Your task to perform on an android device: Empty the shopping cart on ebay. Add "macbook pro" to the cart on ebay Image 0: 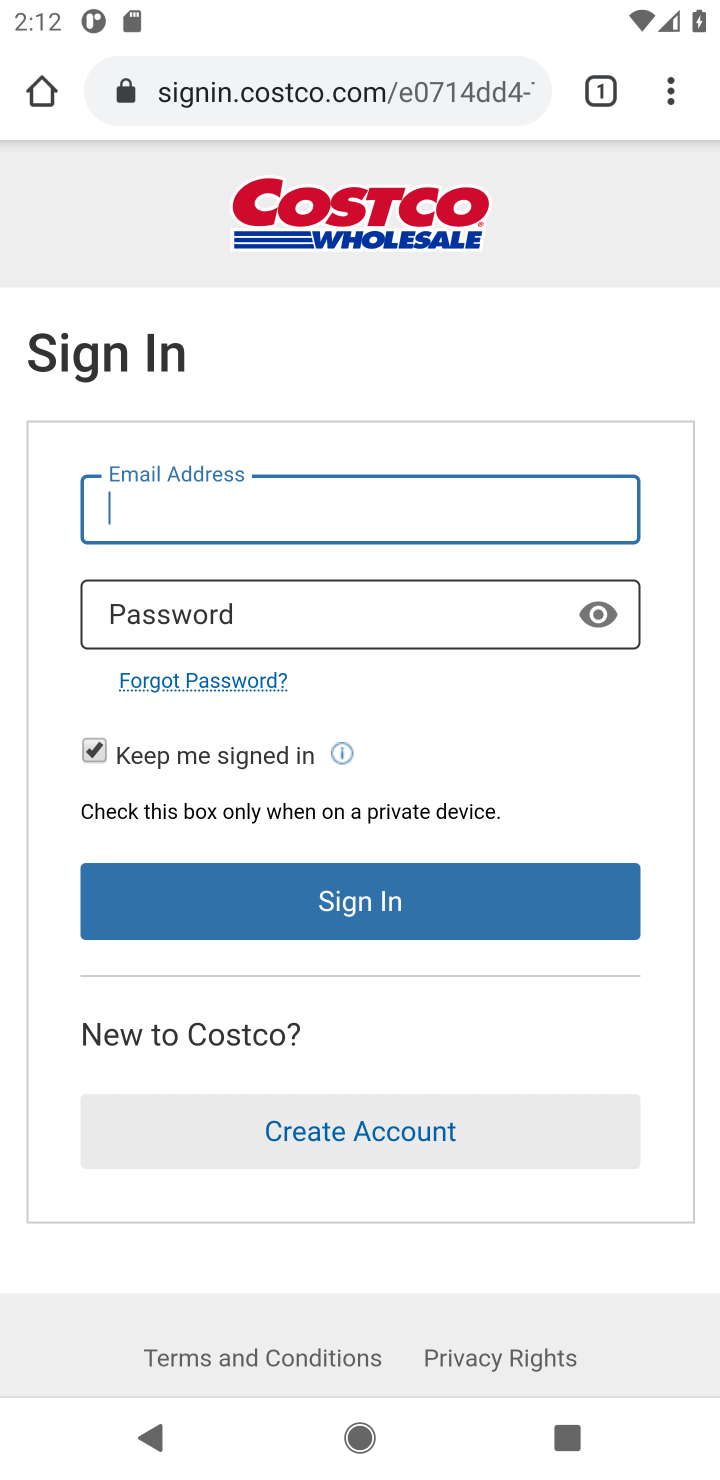
Step 0: press home button
Your task to perform on an android device: Empty the shopping cart on ebay. Add "macbook pro" to the cart on ebay Image 1: 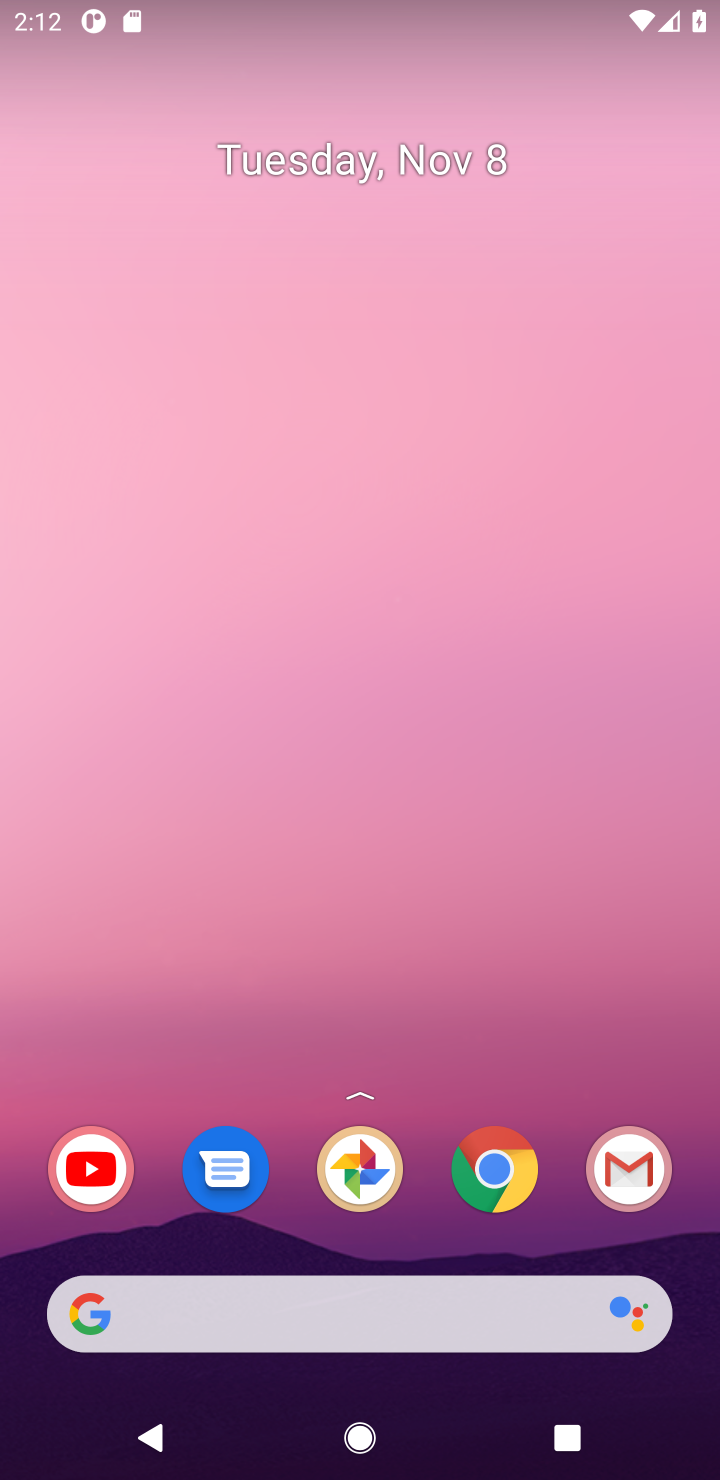
Step 1: click (524, 1169)
Your task to perform on an android device: Empty the shopping cart on ebay. Add "macbook pro" to the cart on ebay Image 2: 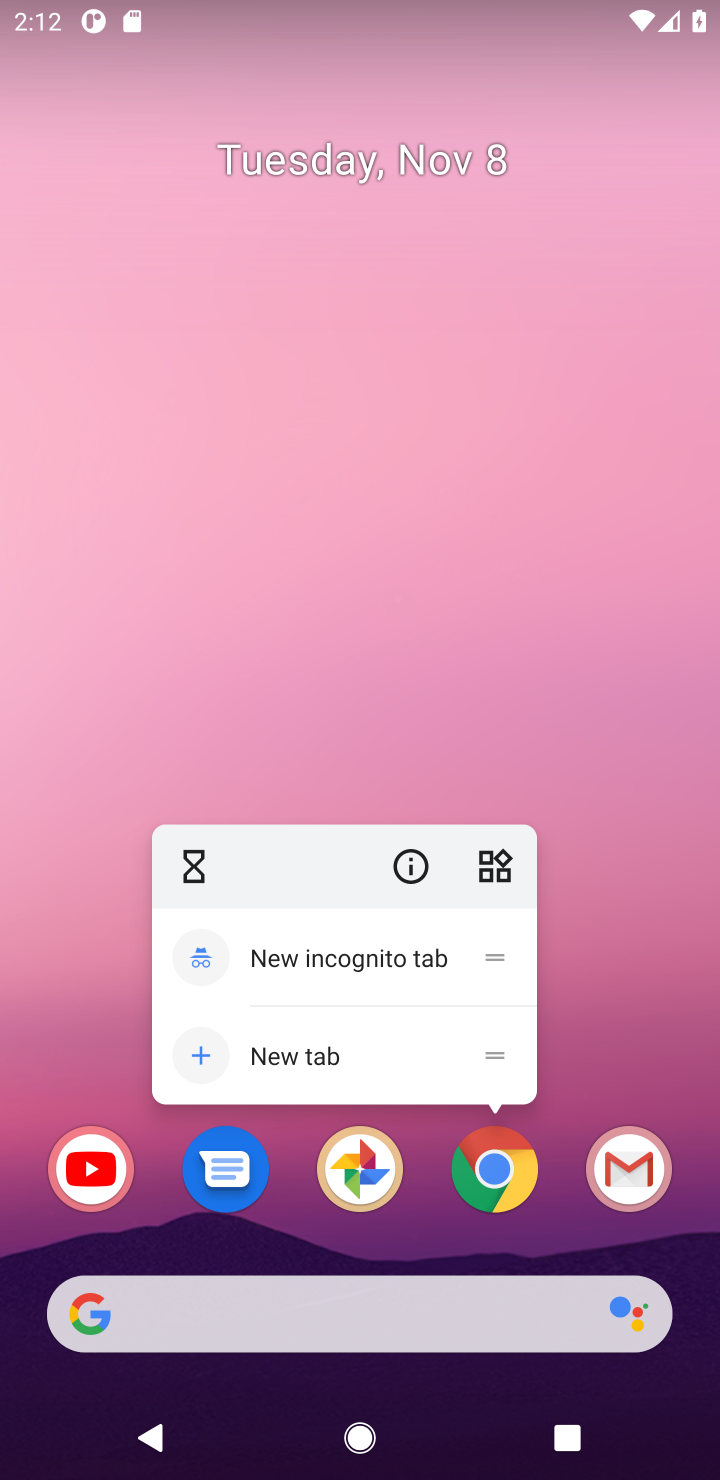
Step 2: click (512, 1161)
Your task to perform on an android device: Empty the shopping cart on ebay. Add "macbook pro" to the cart on ebay Image 3: 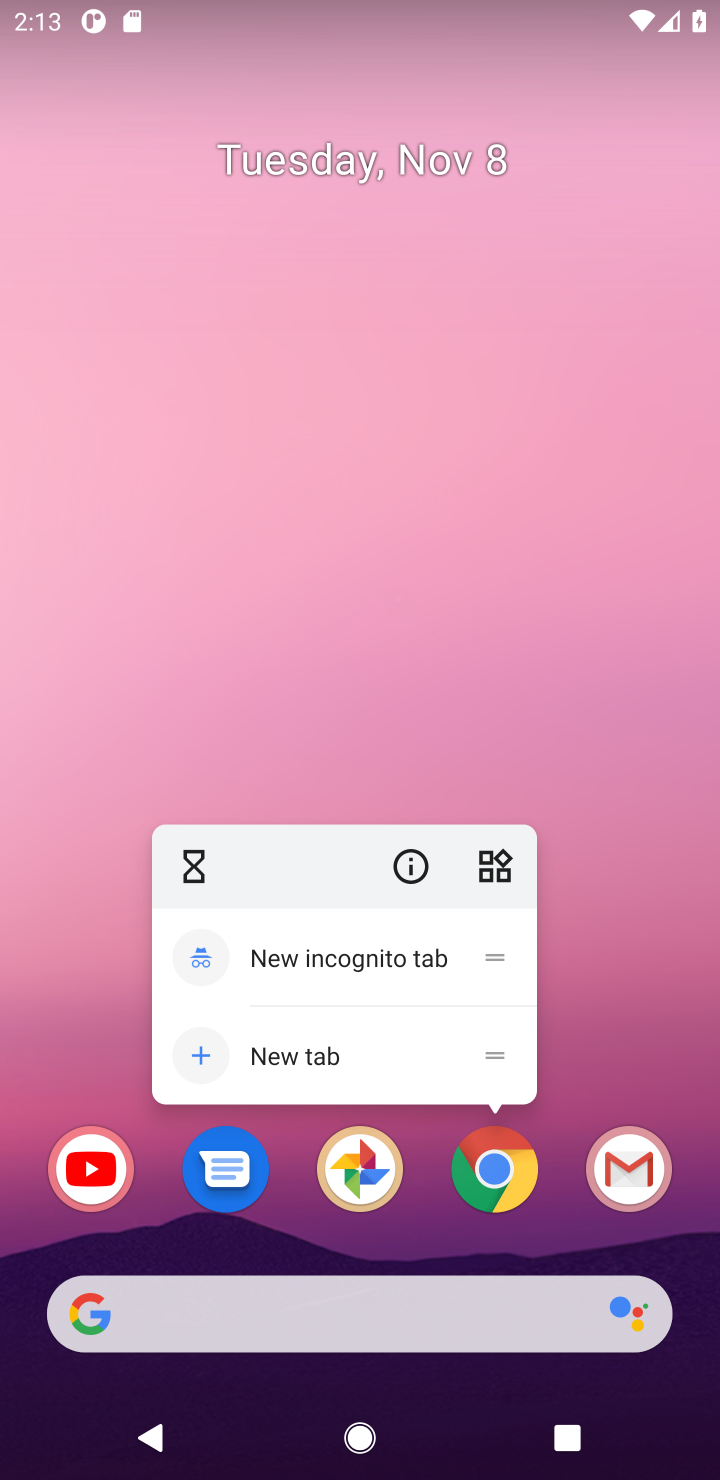
Step 3: click (494, 1184)
Your task to perform on an android device: Empty the shopping cart on ebay. Add "macbook pro" to the cart on ebay Image 4: 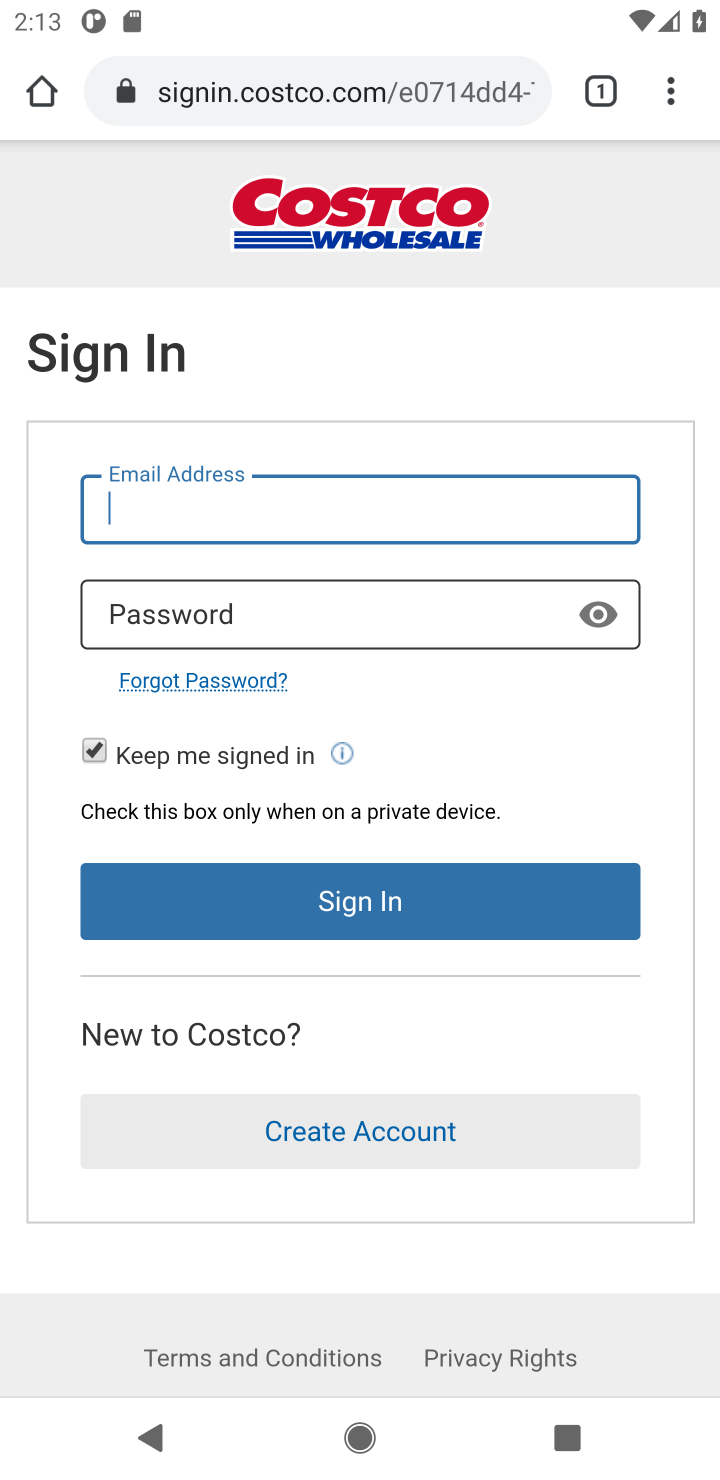
Step 4: click (334, 108)
Your task to perform on an android device: Empty the shopping cart on ebay. Add "macbook pro" to the cart on ebay Image 5: 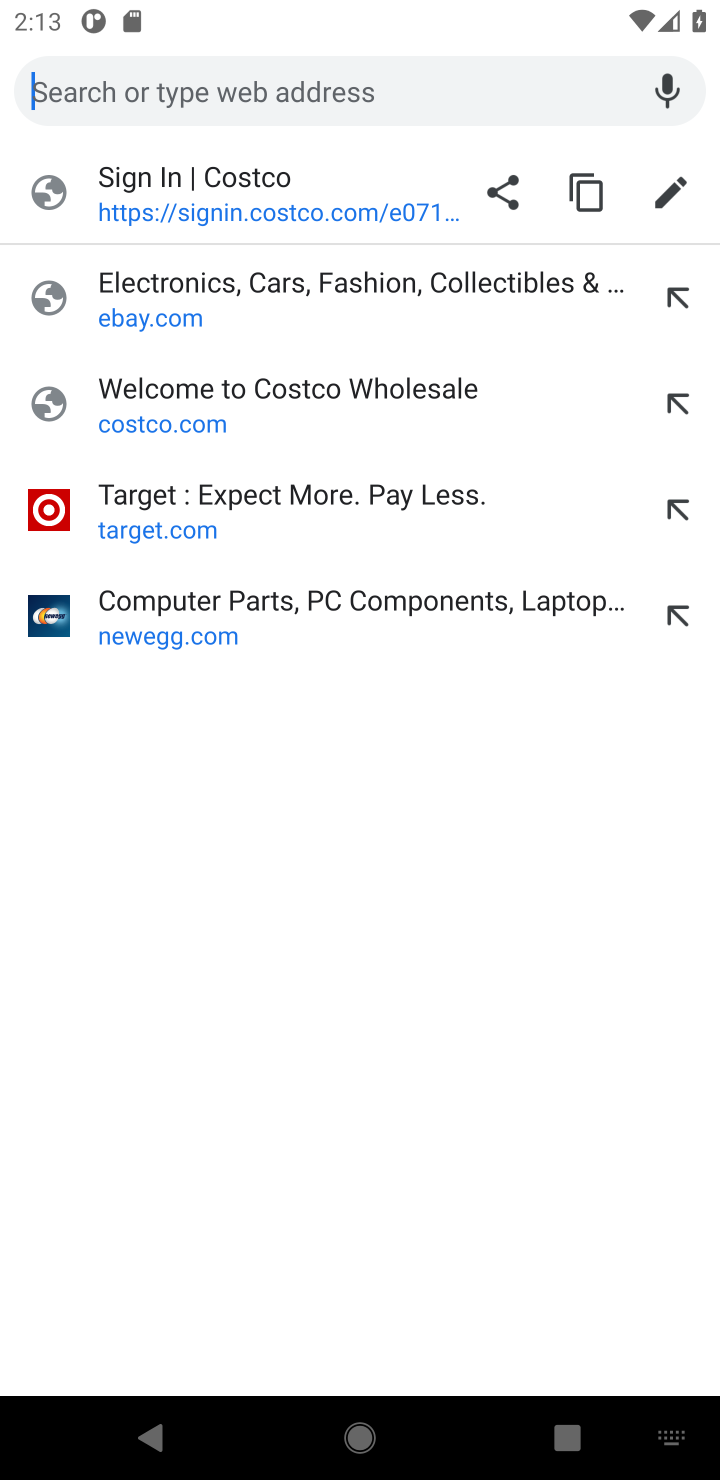
Step 5: type "ebay"
Your task to perform on an android device: Empty the shopping cart on ebay. Add "macbook pro" to the cart on ebay Image 6: 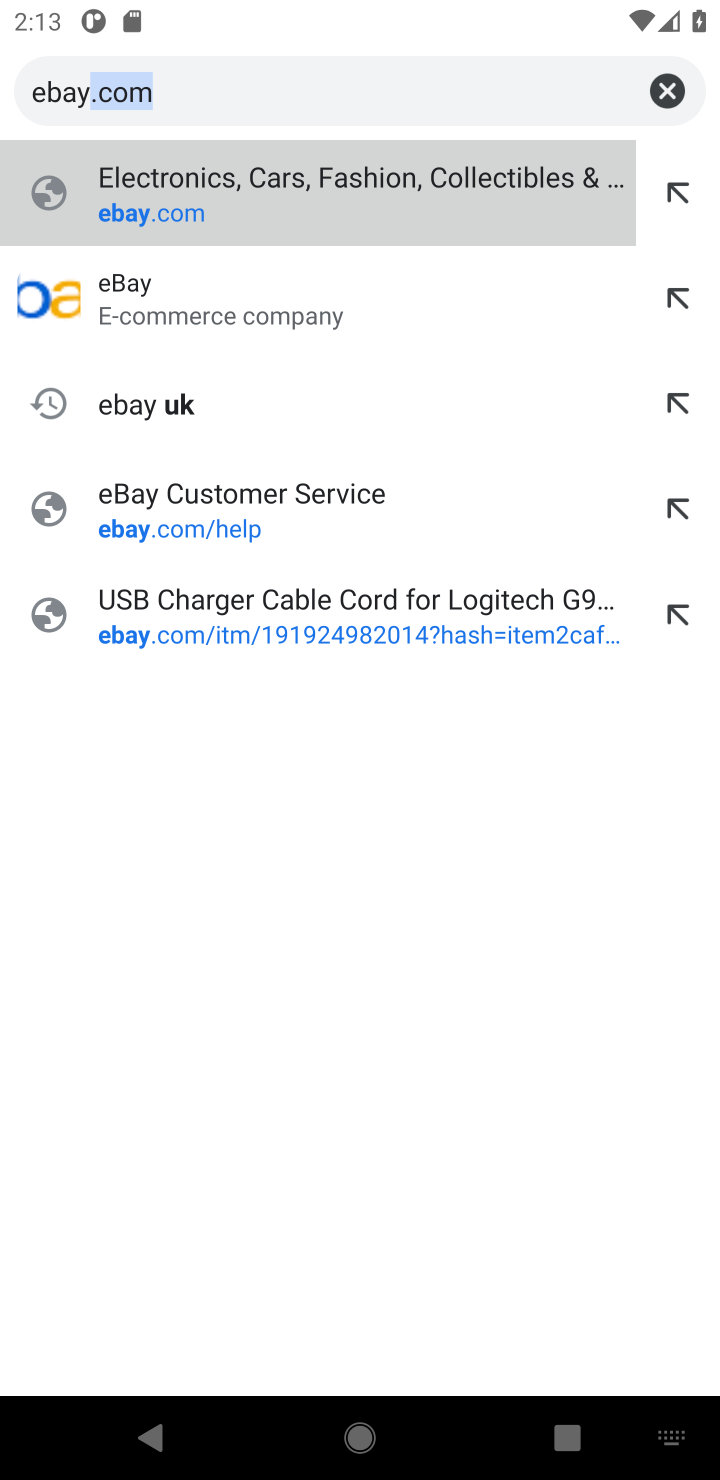
Step 6: click (485, 187)
Your task to perform on an android device: Empty the shopping cart on ebay. Add "macbook pro" to the cart on ebay Image 7: 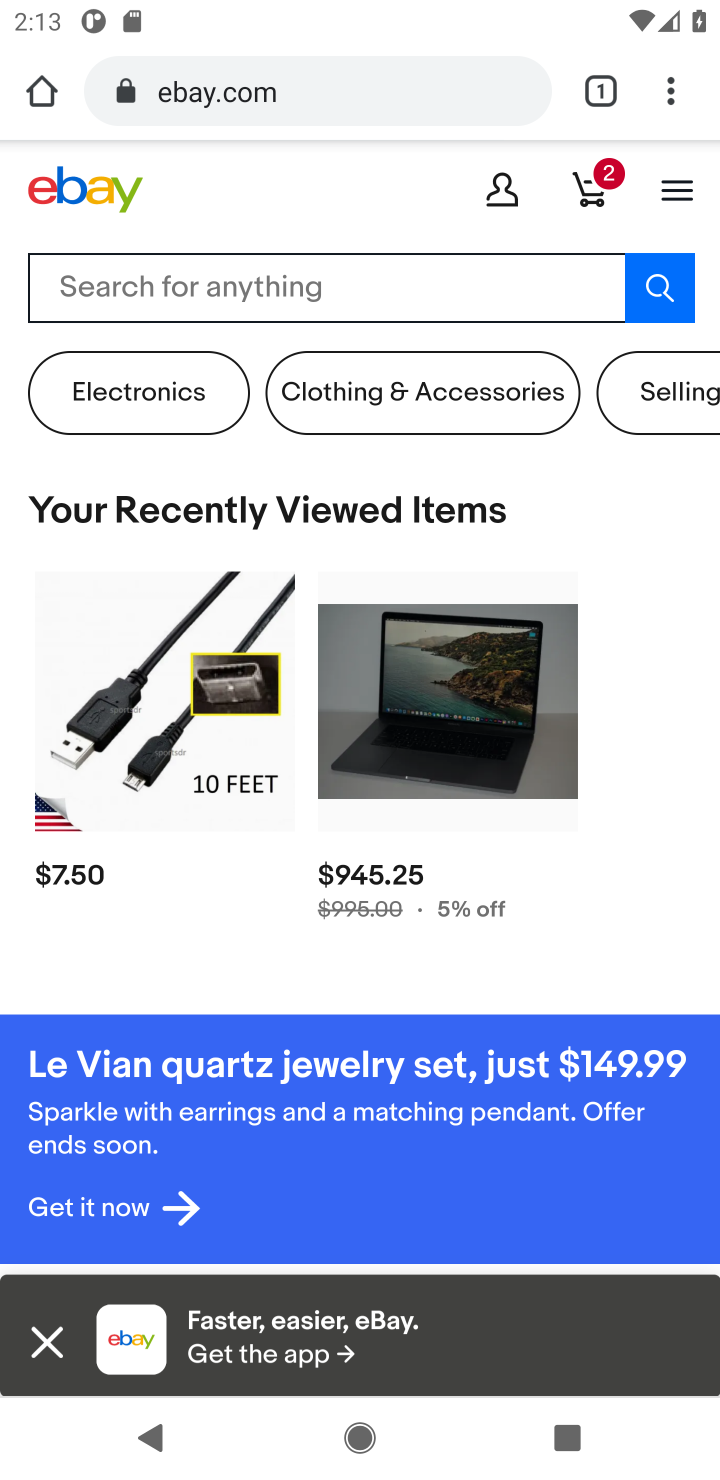
Step 7: click (344, 287)
Your task to perform on an android device: Empty the shopping cart on ebay. Add "macbook pro" to the cart on ebay Image 8: 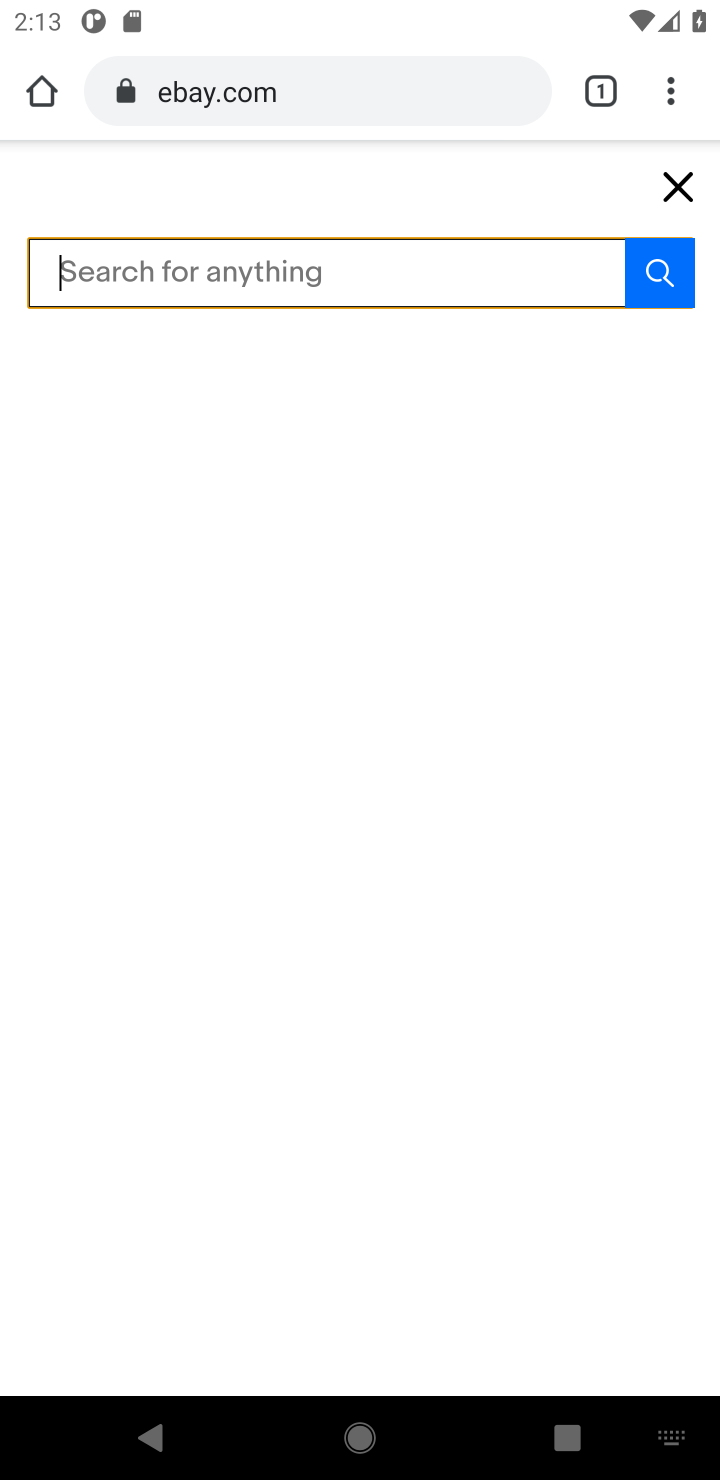
Step 8: type "macbook pro"
Your task to perform on an android device: Empty the shopping cart on ebay. Add "macbook pro" to the cart on ebay Image 9: 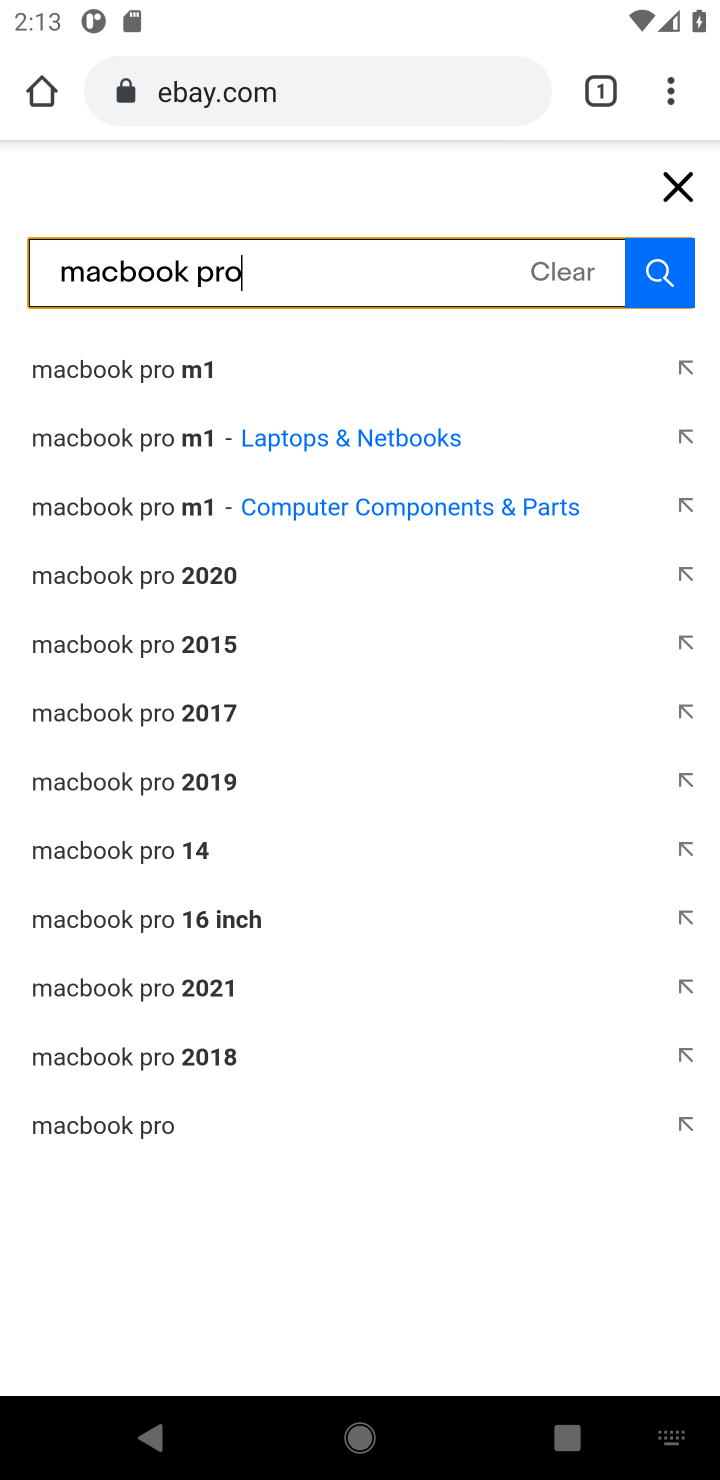
Step 9: press enter
Your task to perform on an android device: Empty the shopping cart on ebay. Add "macbook pro" to the cart on ebay Image 10: 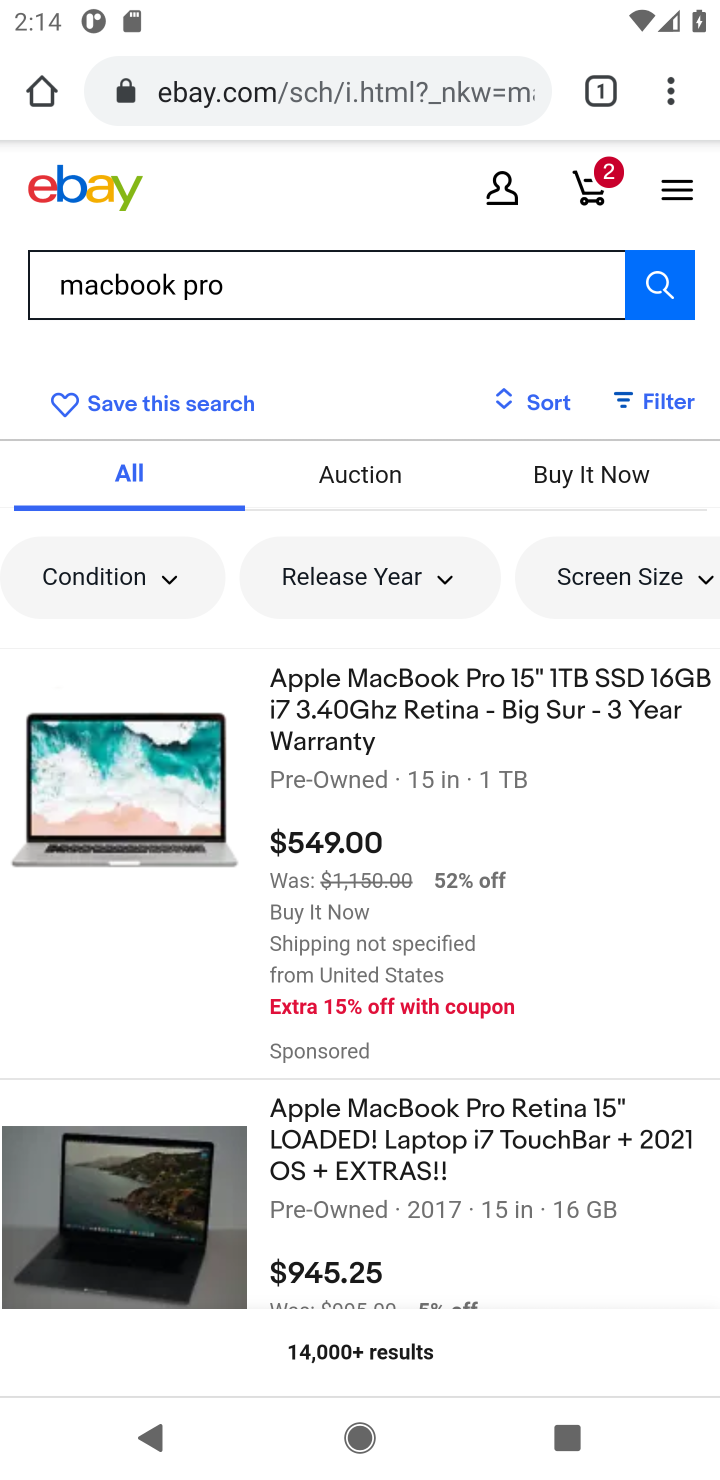
Step 10: click (334, 764)
Your task to perform on an android device: Empty the shopping cart on ebay. Add "macbook pro" to the cart on ebay Image 11: 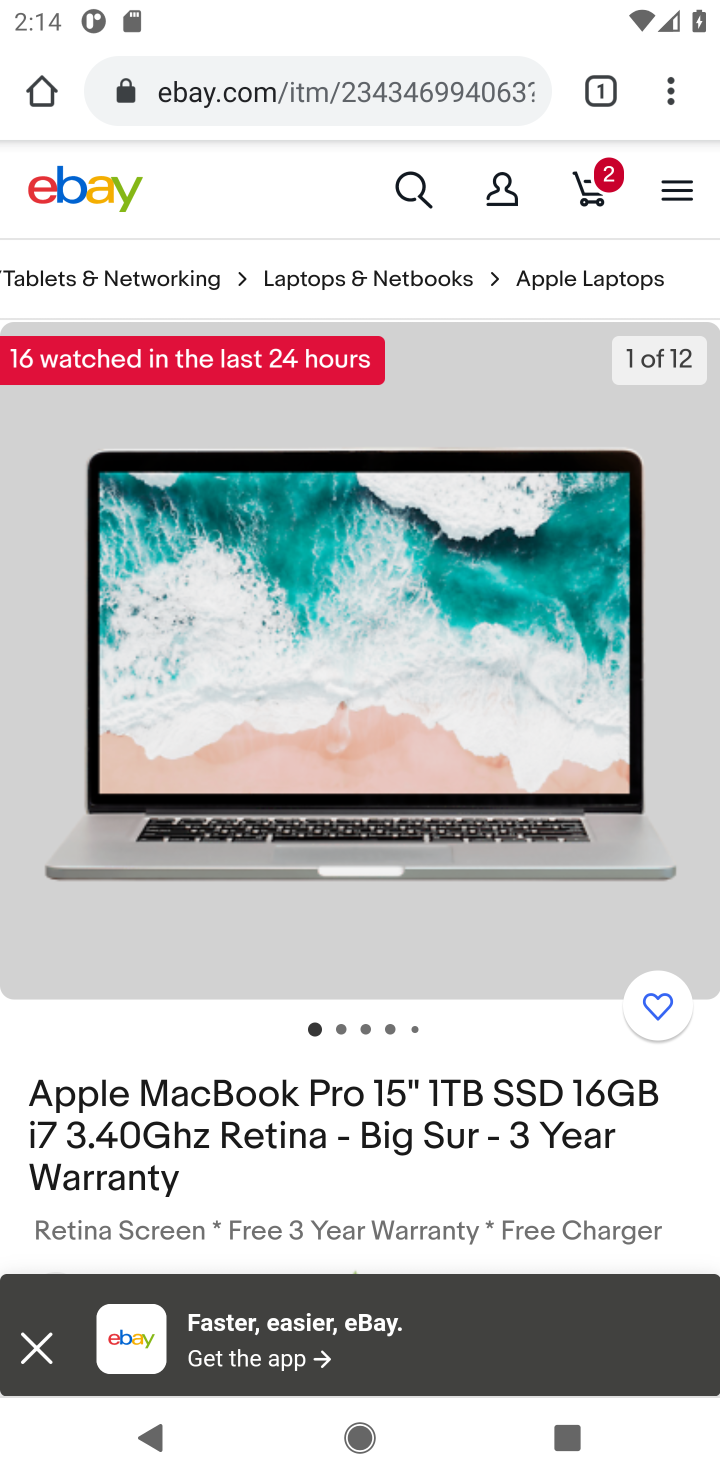
Step 11: drag from (251, 1120) to (108, 314)
Your task to perform on an android device: Empty the shopping cart on ebay. Add "macbook pro" to the cart on ebay Image 12: 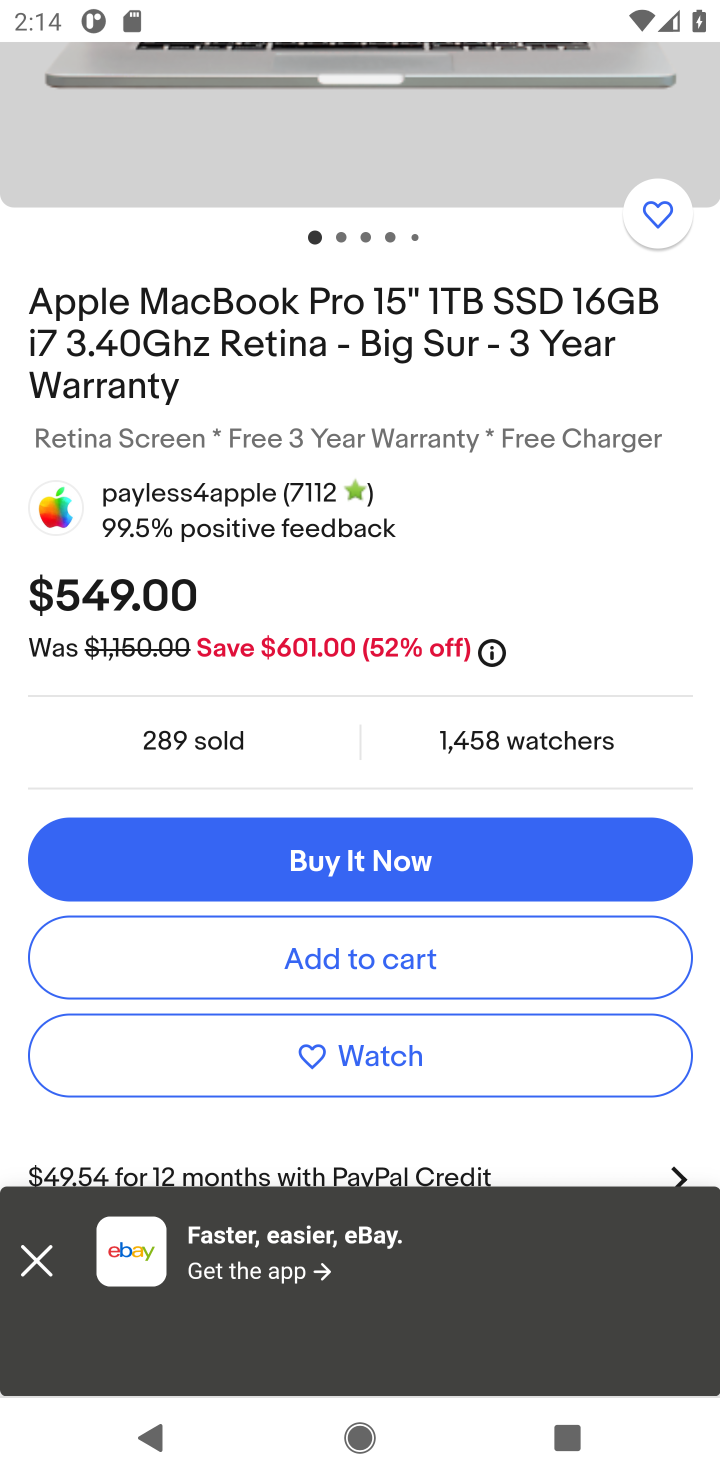
Step 12: click (401, 956)
Your task to perform on an android device: Empty the shopping cart on ebay. Add "macbook pro" to the cart on ebay Image 13: 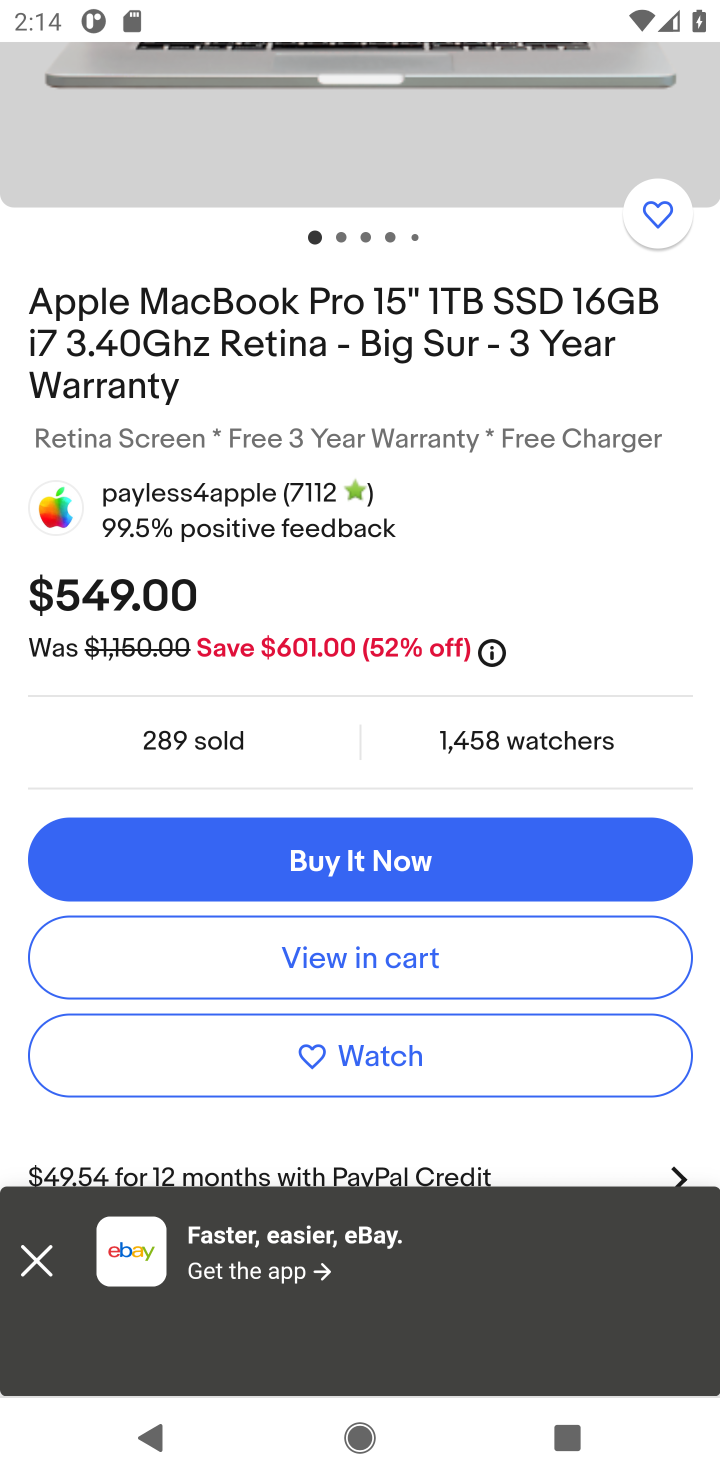
Step 13: task complete